Your task to perform on an android device: Open CNN.com Image 0: 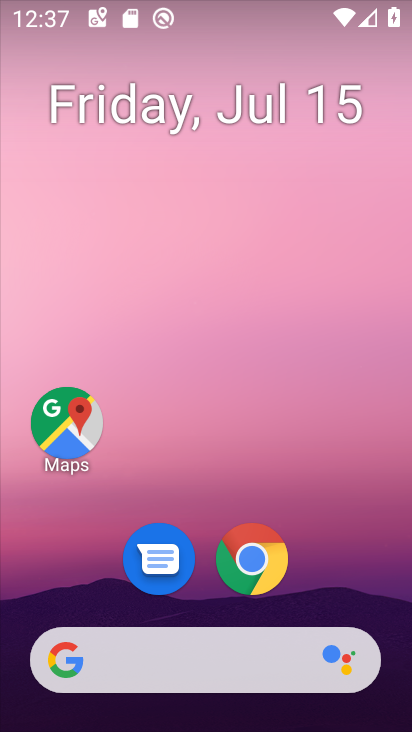
Step 0: drag from (355, 591) to (350, 214)
Your task to perform on an android device: Open CNN.com Image 1: 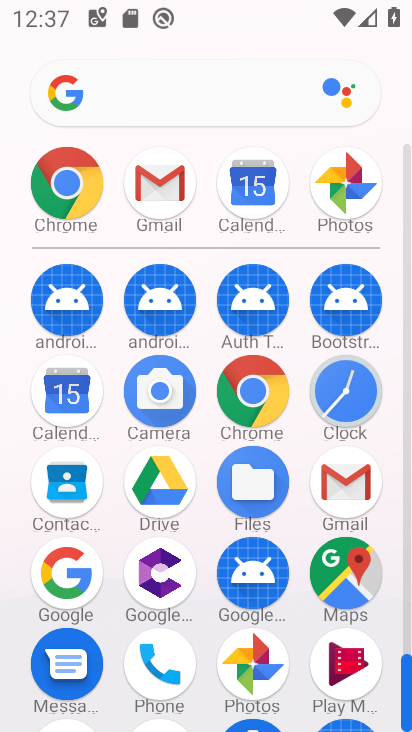
Step 1: click (263, 390)
Your task to perform on an android device: Open CNN.com Image 2: 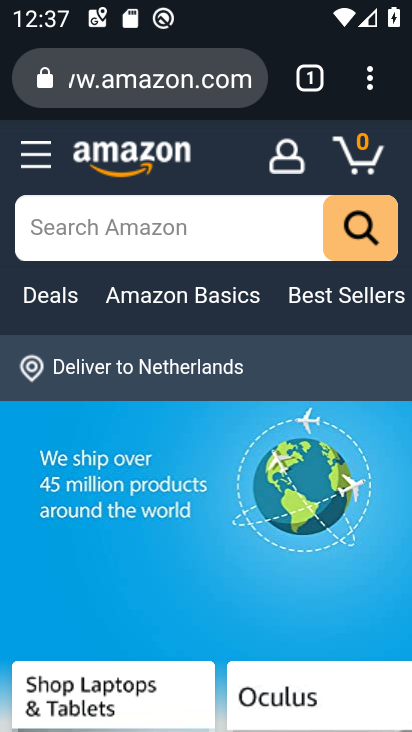
Step 2: click (205, 86)
Your task to perform on an android device: Open CNN.com Image 3: 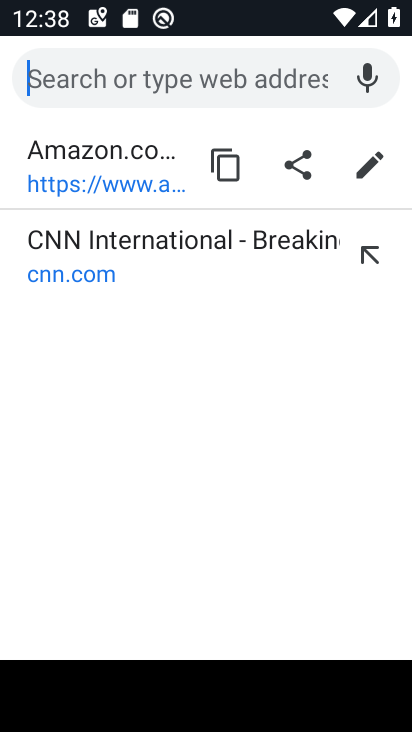
Step 3: type "cnn.com"
Your task to perform on an android device: Open CNN.com Image 4: 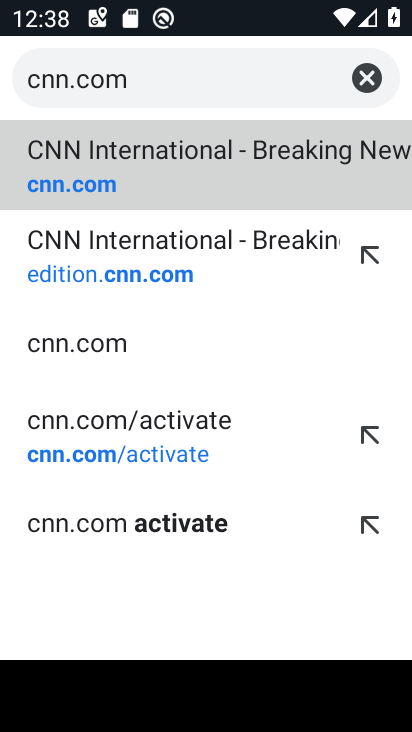
Step 4: click (282, 160)
Your task to perform on an android device: Open CNN.com Image 5: 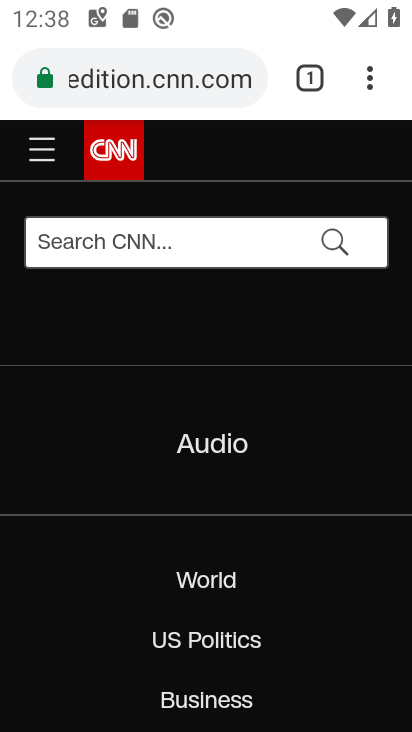
Step 5: task complete